Your task to perform on an android device: Clear all items from cart on costco. Image 0: 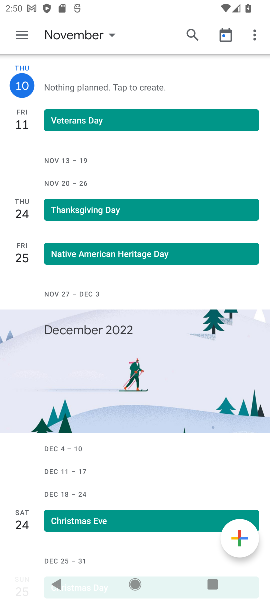
Step 0: press home button
Your task to perform on an android device: Clear all items from cart on costco. Image 1: 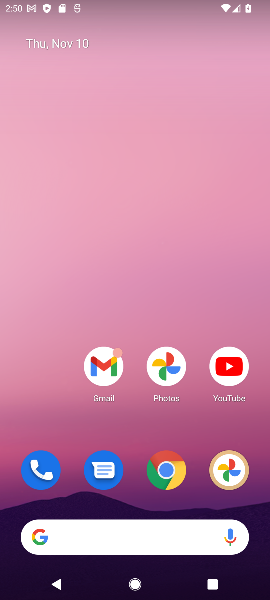
Step 1: click (162, 478)
Your task to perform on an android device: Clear all items from cart on costco. Image 2: 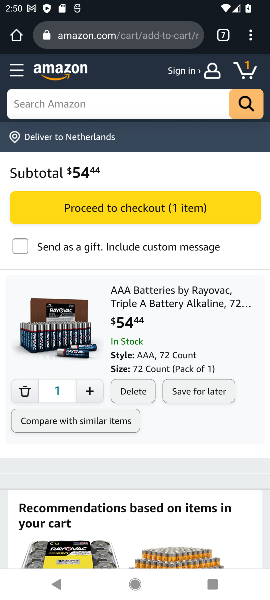
Step 2: click (224, 39)
Your task to perform on an android device: Clear all items from cart on costco. Image 3: 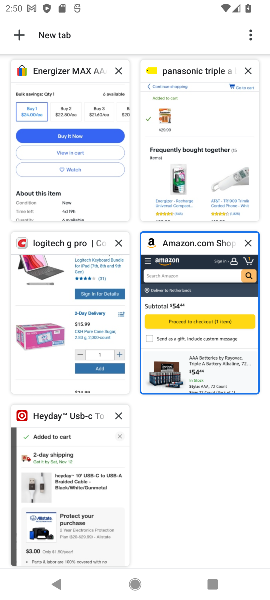
Step 3: click (81, 300)
Your task to perform on an android device: Clear all items from cart on costco. Image 4: 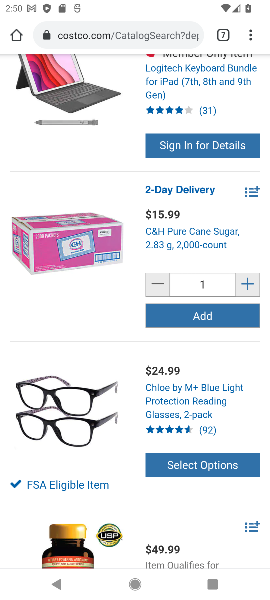
Step 4: drag from (124, 116) to (117, 375)
Your task to perform on an android device: Clear all items from cart on costco. Image 5: 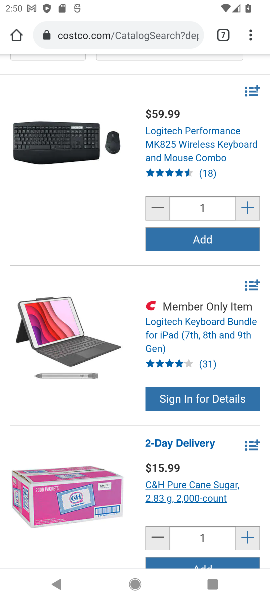
Step 5: drag from (122, 87) to (87, 457)
Your task to perform on an android device: Clear all items from cart on costco. Image 6: 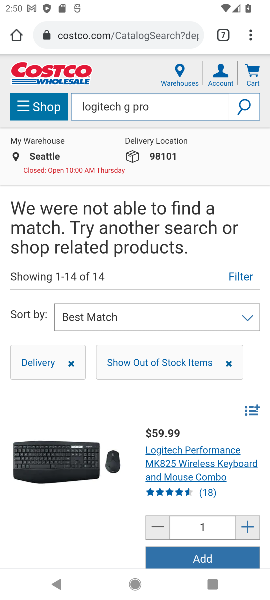
Step 6: click (247, 61)
Your task to perform on an android device: Clear all items from cart on costco. Image 7: 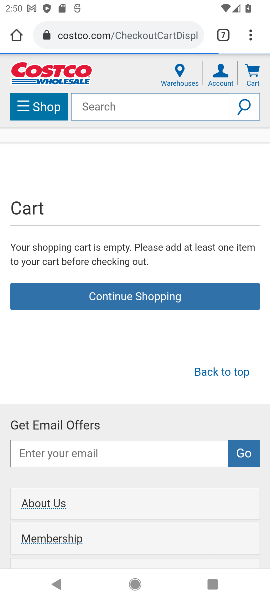
Step 7: task complete